Your task to perform on an android device: turn off improve location accuracy Image 0: 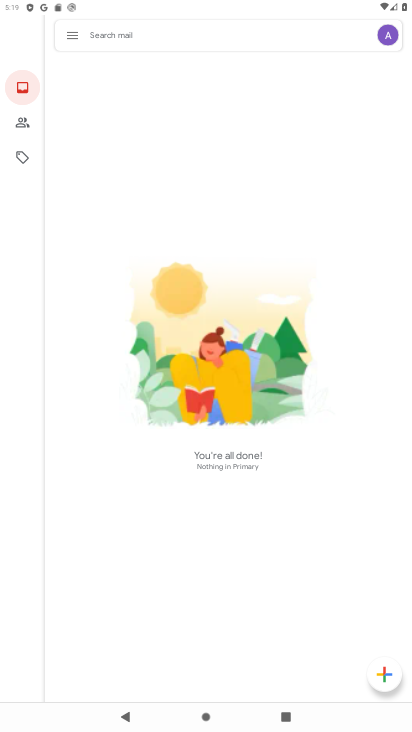
Step 0: press home button
Your task to perform on an android device: turn off improve location accuracy Image 1: 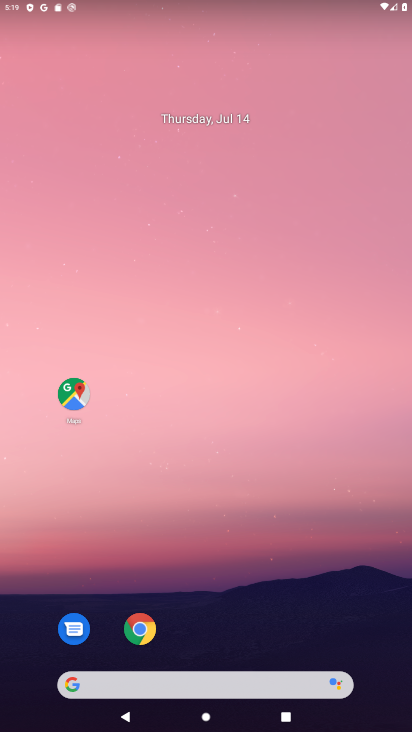
Step 1: drag from (269, 590) to (282, 133)
Your task to perform on an android device: turn off improve location accuracy Image 2: 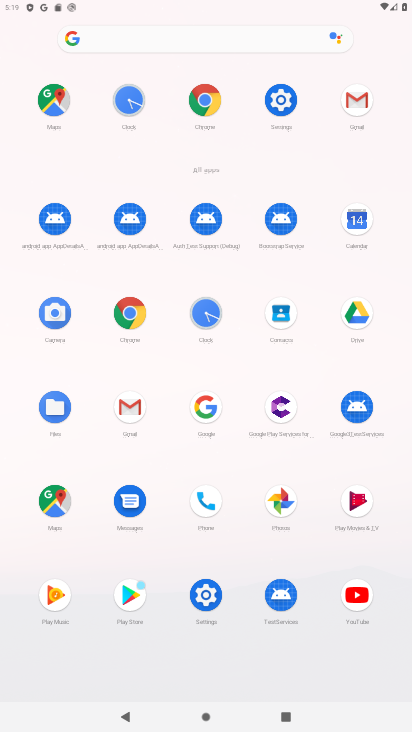
Step 2: click (282, 101)
Your task to perform on an android device: turn off improve location accuracy Image 3: 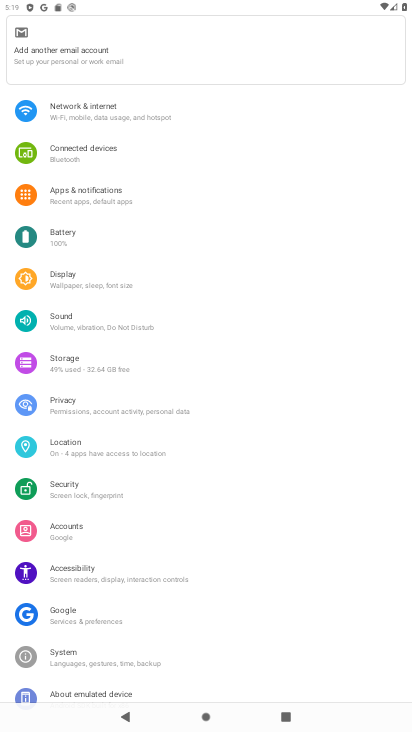
Step 3: click (97, 444)
Your task to perform on an android device: turn off improve location accuracy Image 4: 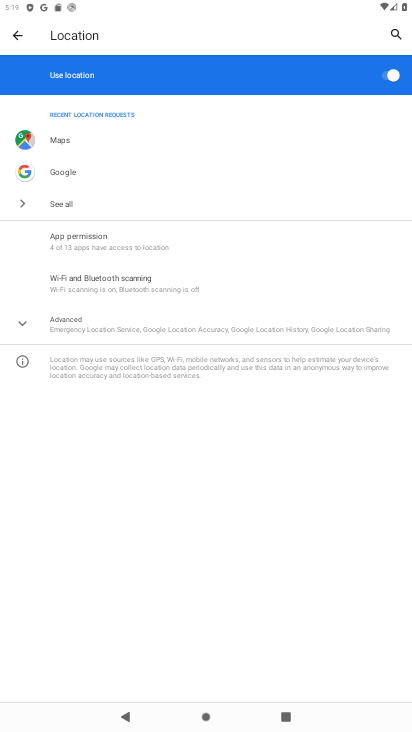
Step 4: click (85, 332)
Your task to perform on an android device: turn off improve location accuracy Image 5: 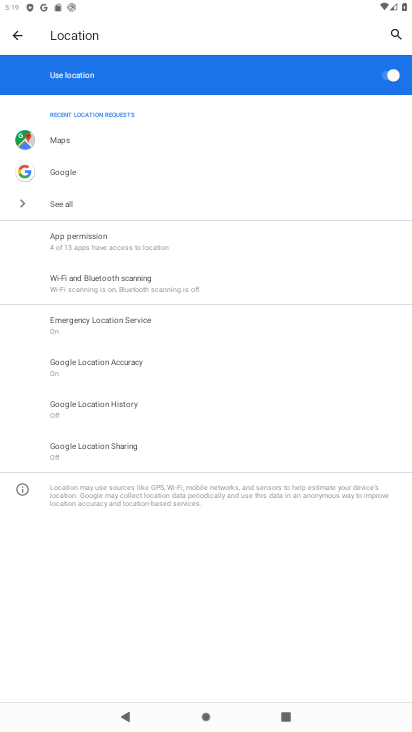
Step 5: click (135, 369)
Your task to perform on an android device: turn off improve location accuracy Image 6: 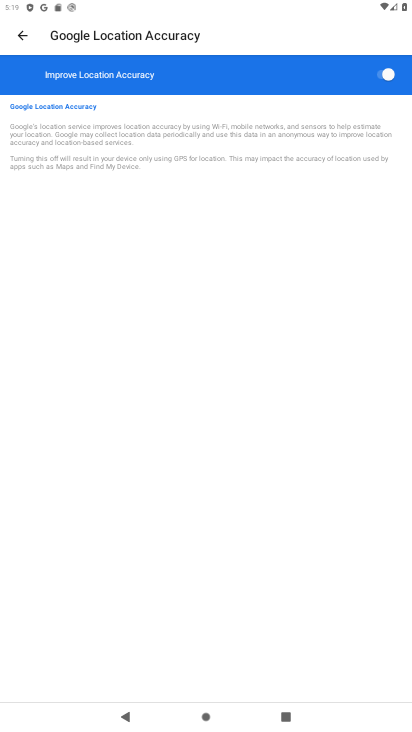
Step 6: click (389, 71)
Your task to perform on an android device: turn off improve location accuracy Image 7: 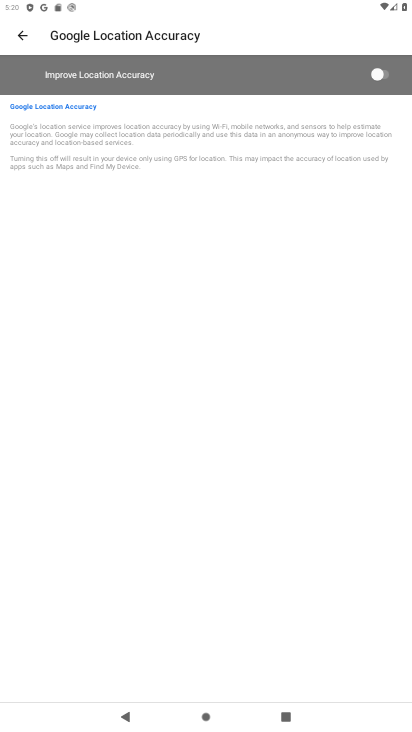
Step 7: task complete